Your task to perform on an android device: make emails show in primary in the gmail app Image 0: 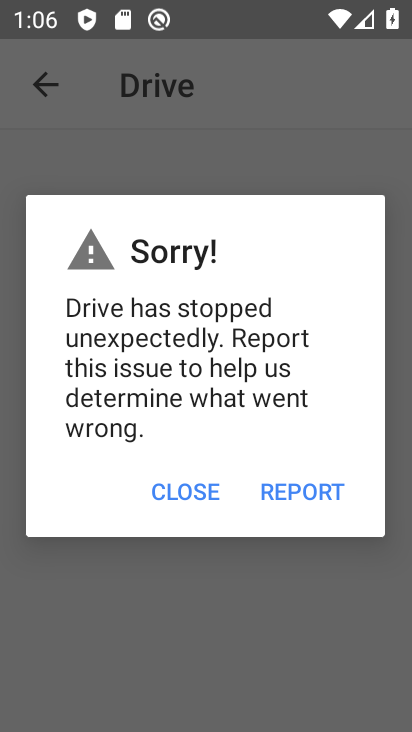
Step 0: press home button
Your task to perform on an android device: make emails show in primary in the gmail app Image 1: 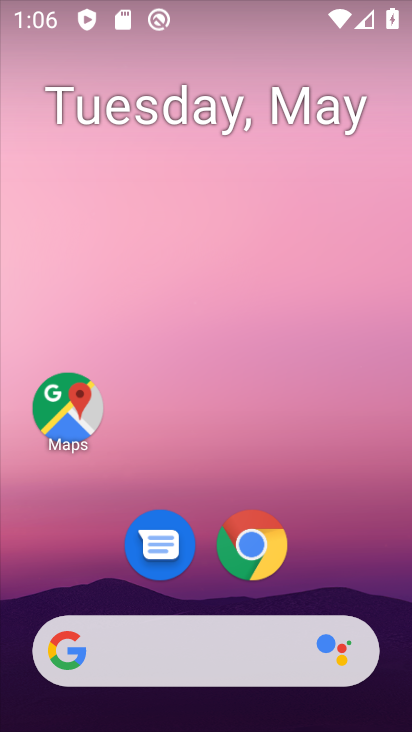
Step 1: drag from (386, 616) to (348, 34)
Your task to perform on an android device: make emails show in primary in the gmail app Image 2: 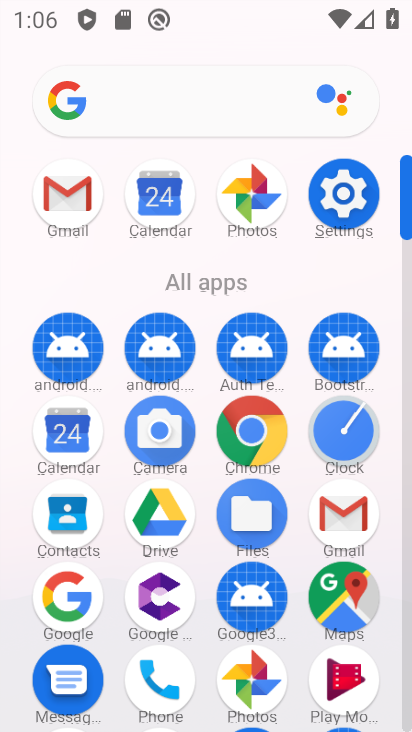
Step 2: click (342, 512)
Your task to perform on an android device: make emails show in primary in the gmail app Image 3: 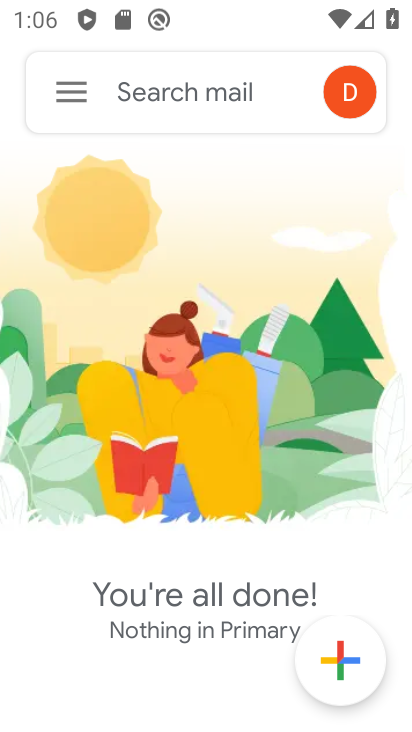
Step 3: click (71, 102)
Your task to perform on an android device: make emails show in primary in the gmail app Image 4: 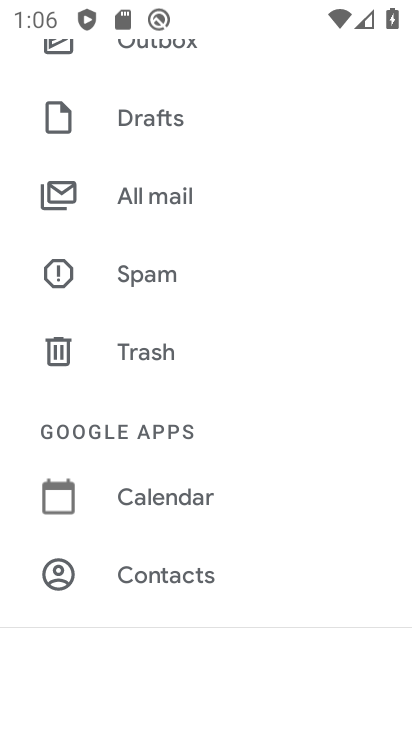
Step 4: drag from (161, 573) to (195, 162)
Your task to perform on an android device: make emails show in primary in the gmail app Image 5: 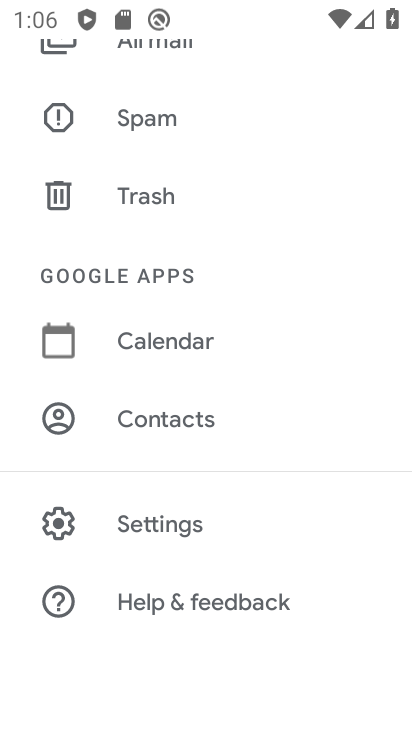
Step 5: click (145, 528)
Your task to perform on an android device: make emails show in primary in the gmail app Image 6: 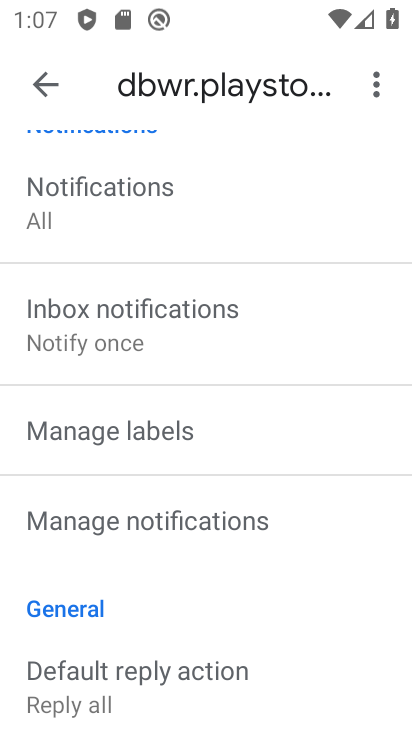
Step 6: drag from (261, 521) to (267, 191)
Your task to perform on an android device: make emails show in primary in the gmail app Image 7: 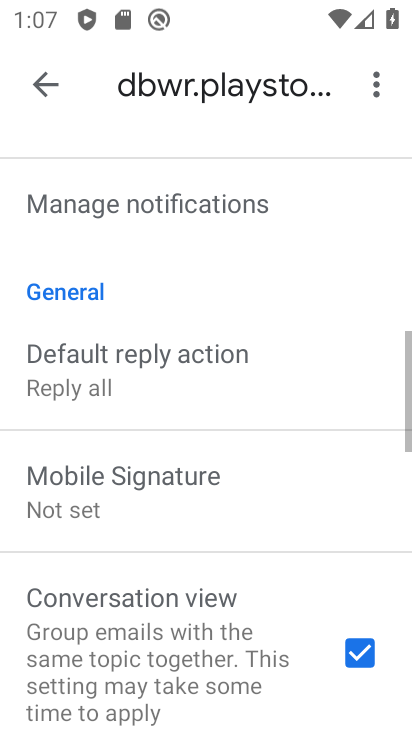
Step 7: drag from (267, 191) to (231, 626)
Your task to perform on an android device: make emails show in primary in the gmail app Image 8: 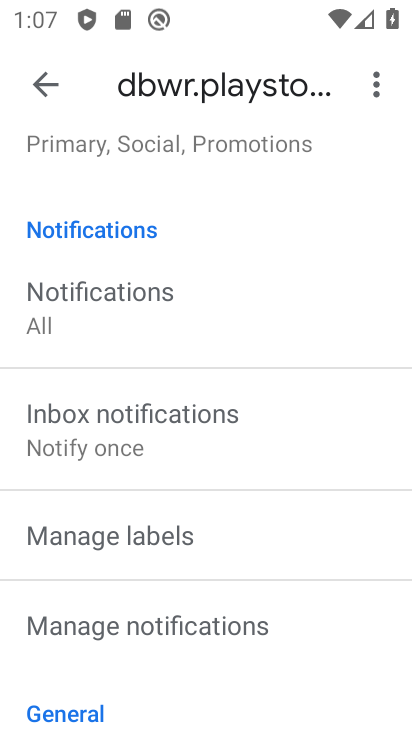
Step 8: drag from (197, 210) to (201, 495)
Your task to perform on an android device: make emails show in primary in the gmail app Image 9: 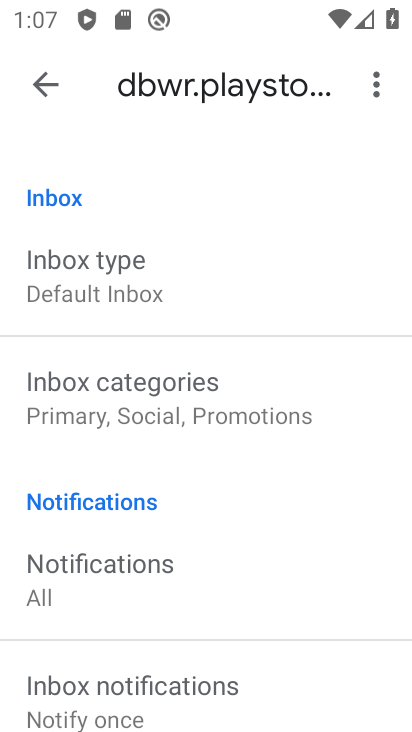
Step 9: click (104, 402)
Your task to perform on an android device: make emails show in primary in the gmail app Image 10: 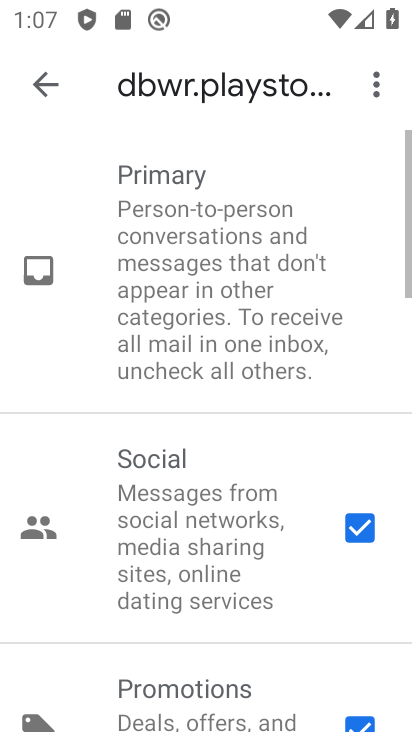
Step 10: click (361, 524)
Your task to perform on an android device: make emails show in primary in the gmail app Image 11: 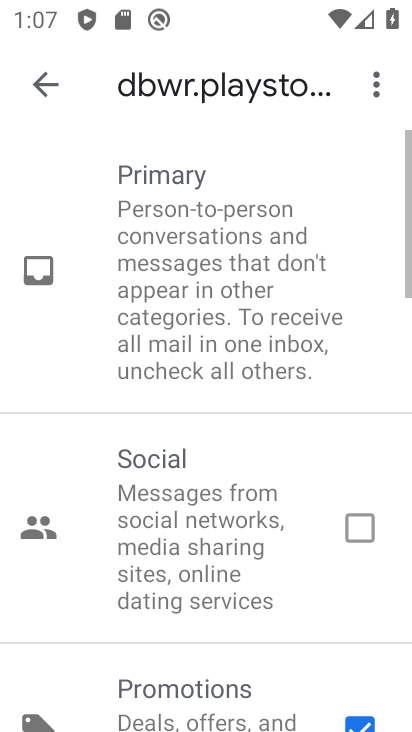
Step 11: click (355, 719)
Your task to perform on an android device: make emails show in primary in the gmail app Image 12: 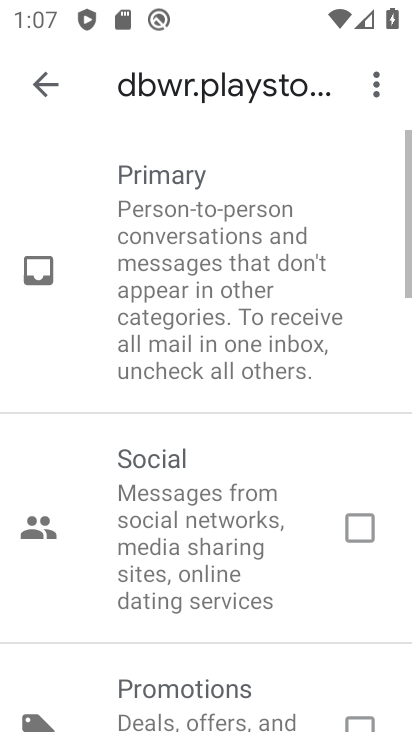
Step 12: task complete